Your task to perform on an android device: see tabs open on other devices in the chrome app Image 0: 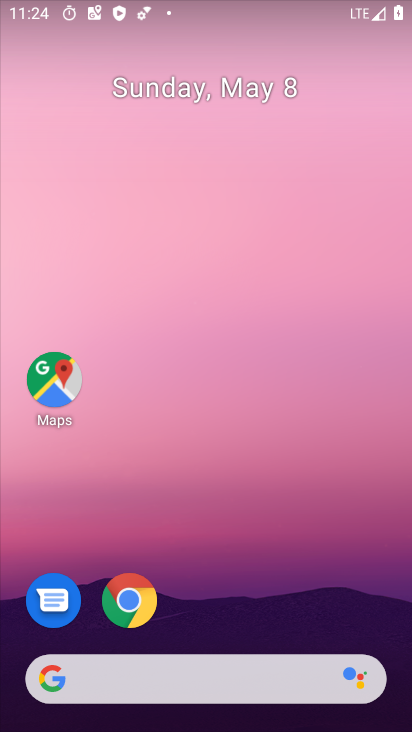
Step 0: click (124, 614)
Your task to perform on an android device: see tabs open on other devices in the chrome app Image 1: 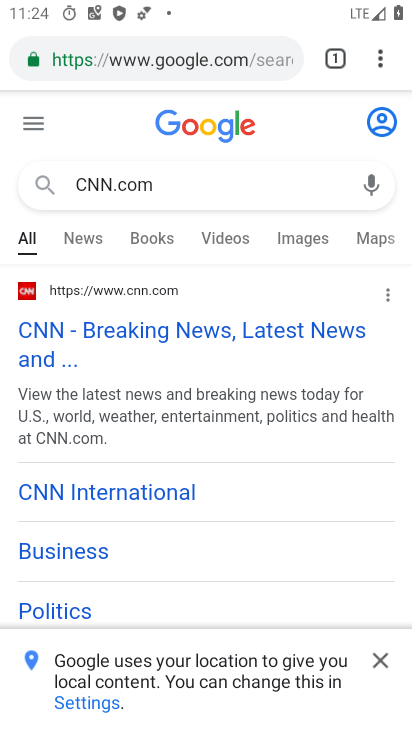
Step 1: click (383, 63)
Your task to perform on an android device: see tabs open on other devices in the chrome app Image 2: 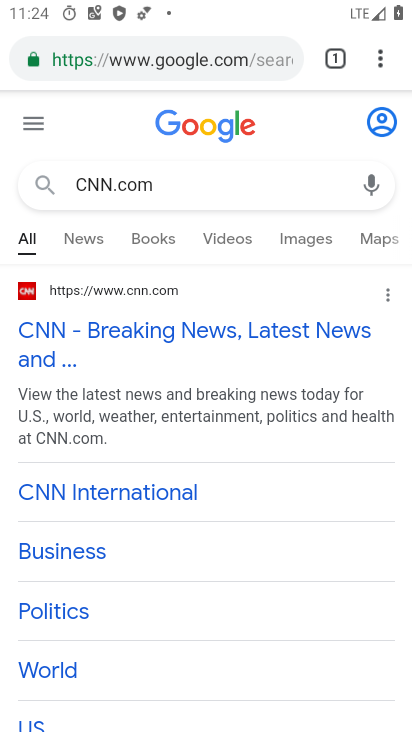
Step 2: click (381, 74)
Your task to perform on an android device: see tabs open on other devices in the chrome app Image 3: 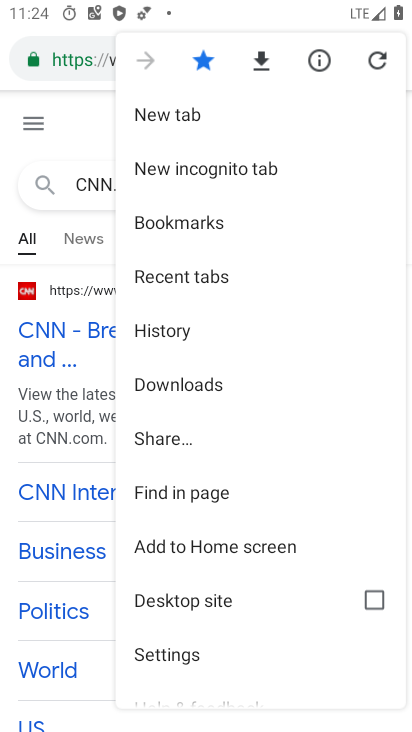
Step 3: click (216, 282)
Your task to perform on an android device: see tabs open on other devices in the chrome app Image 4: 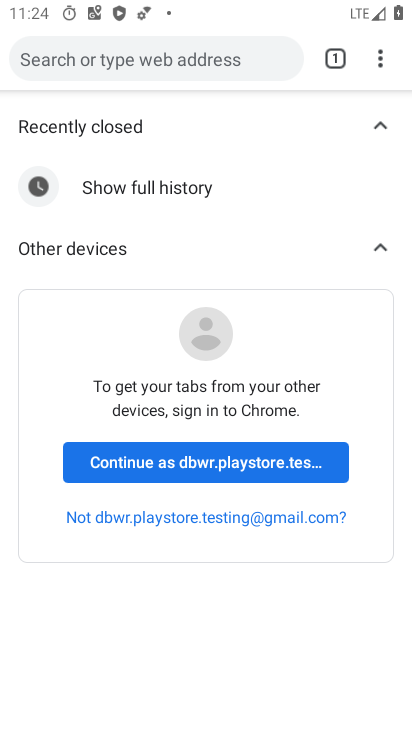
Step 4: click (221, 461)
Your task to perform on an android device: see tabs open on other devices in the chrome app Image 5: 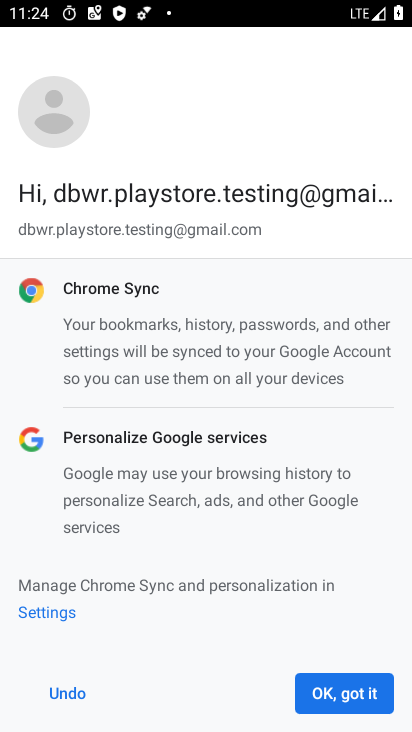
Step 5: click (360, 698)
Your task to perform on an android device: see tabs open on other devices in the chrome app Image 6: 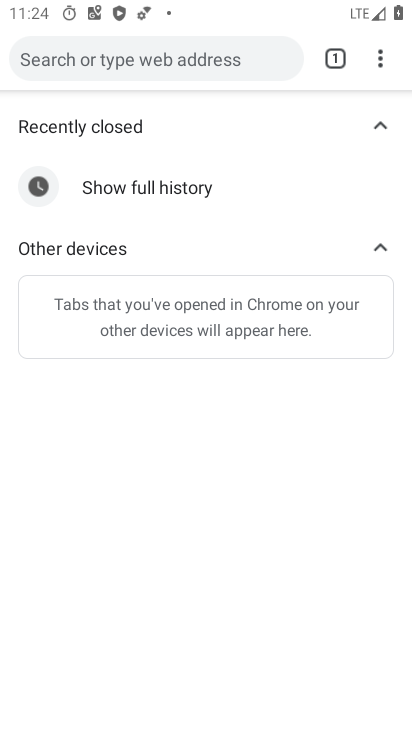
Step 6: click (385, 249)
Your task to perform on an android device: see tabs open on other devices in the chrome app Image 7: 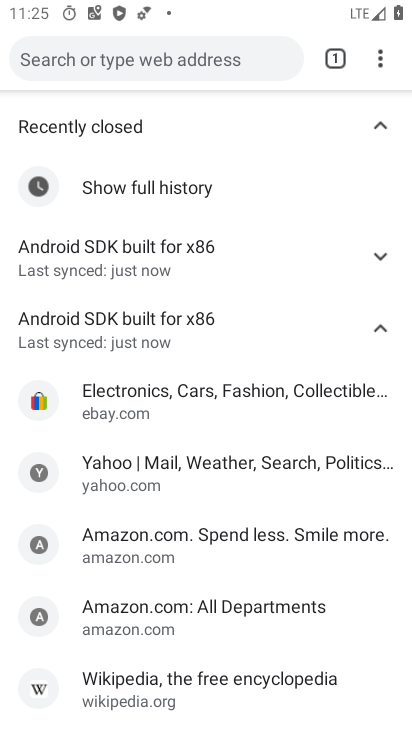
Step 7: task complete